Your task to perform on an android device: Search for Italian restaurants on Maps Image 0: 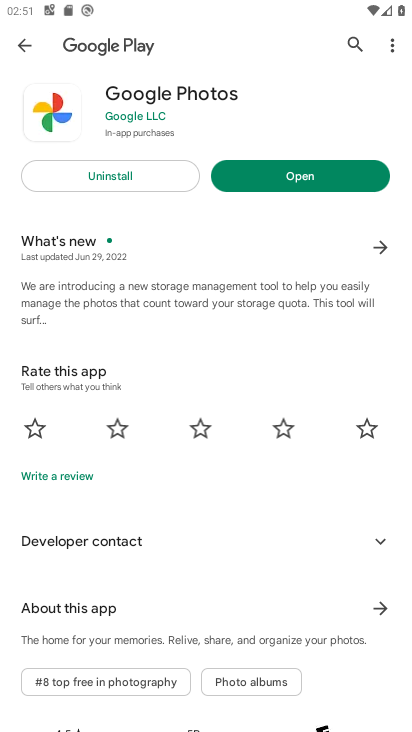
Step 0: press home button
Your task to perform on an android device: Search for Italian restaurants on Maps Image 1: 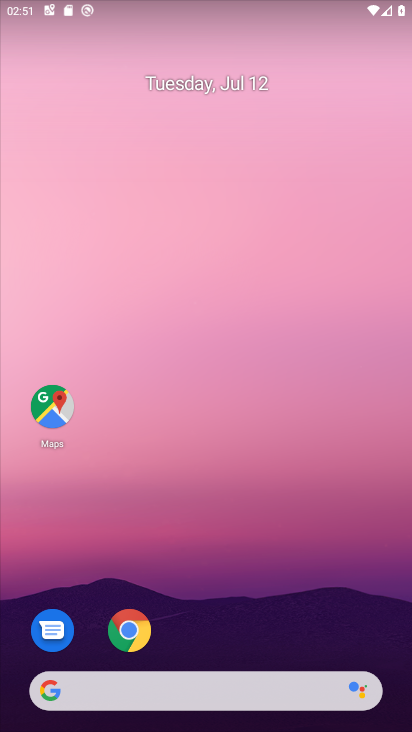
Step 1: click (50, 406)
Your task to perform on an android device: Search for Italian restaurants on Maps Image 2: 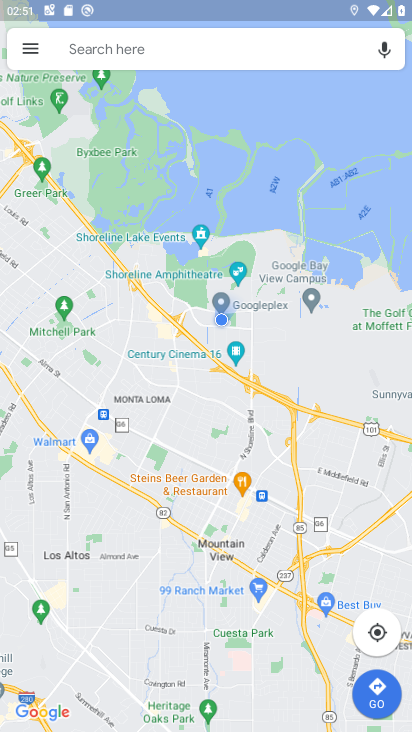
Step 2: click (121, 44)
Your task to perform on an android device: Search for Italian restaurants on Maps Image 3: 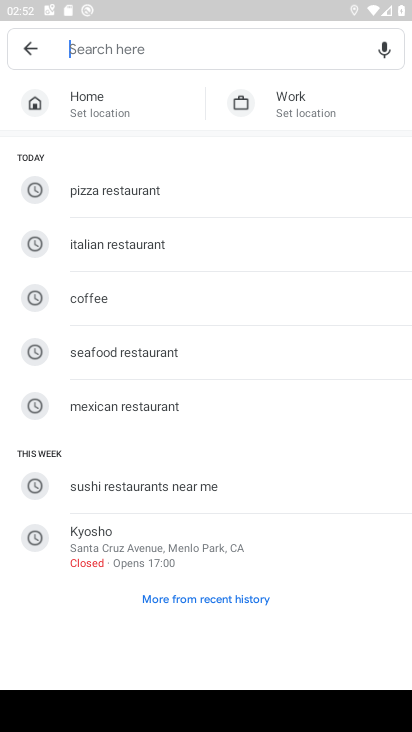
Step 3: type "italian restaurants"
Your task to perform on an android device: Search for Italian restaurants on Maps Image 4: 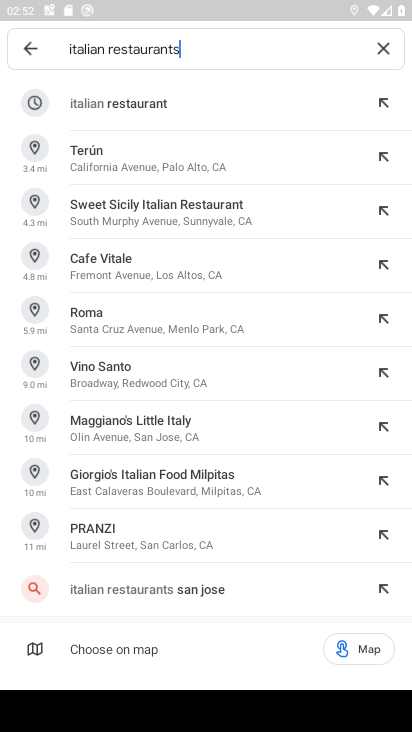
Step 4: click (127, 101)
Your task to perform on an android device: Search for Italian restaurants on Maps Image 5: 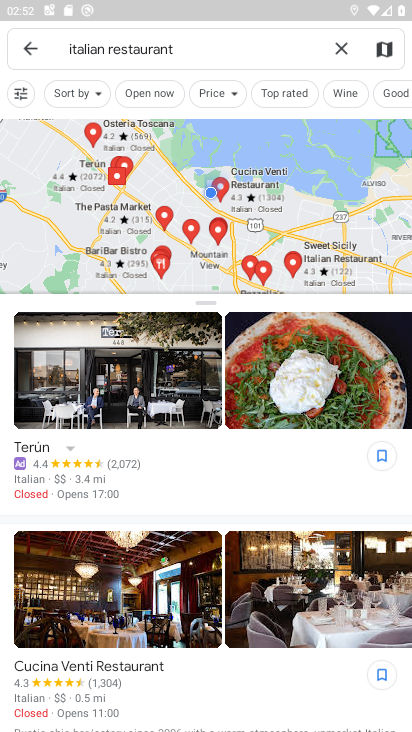
Step 5: task complete